Your task to perform on an android device: Open CNN.com Image 0: 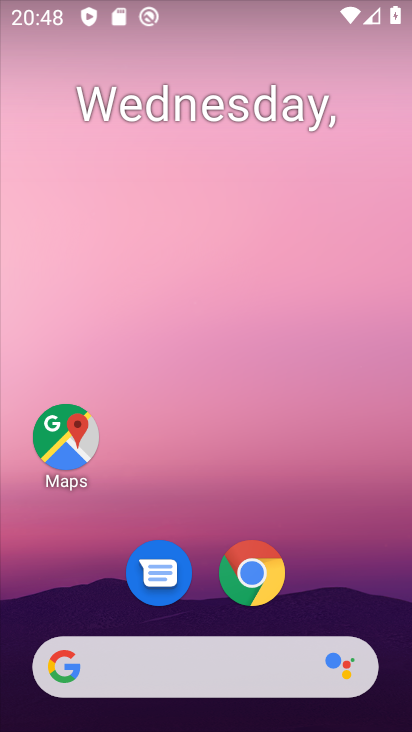
Step 0: click (242, 577)
Your task to perform on an android device: Open CNN.com Image 1: 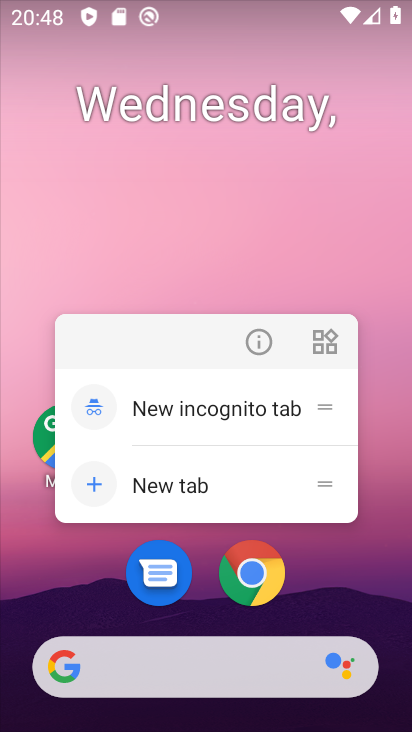
Step 1: click (242, 577)
Your task to perform on an android device: Open CNN.com Image 2: 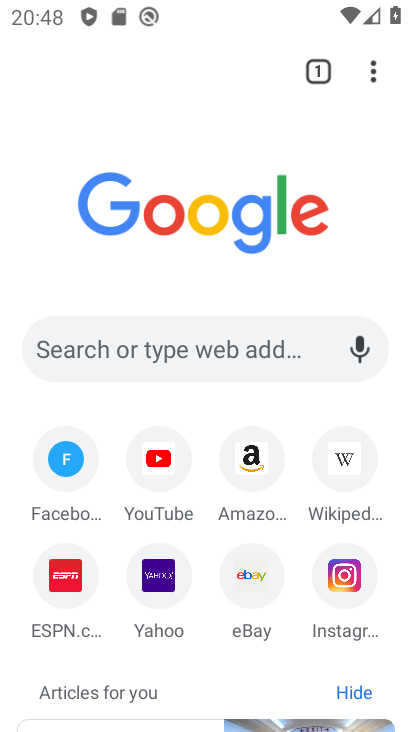
Step 2: click (369, 69)
Your task to perform on an android device: Open CNN.com Image 3: 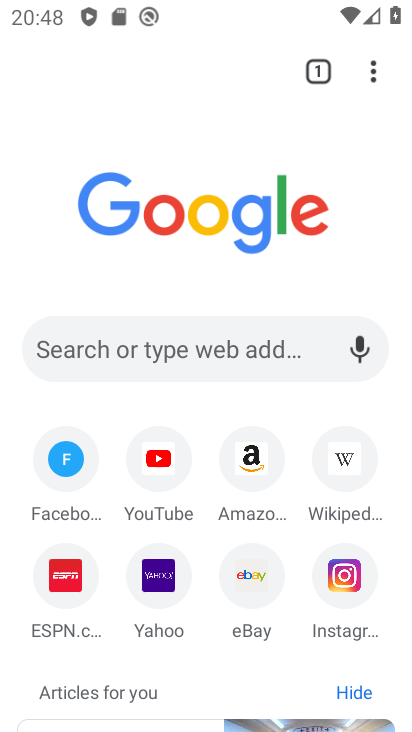
Step 3: click (371, 65)
Your task to perform on an android device: Open CNN.com Image 4: 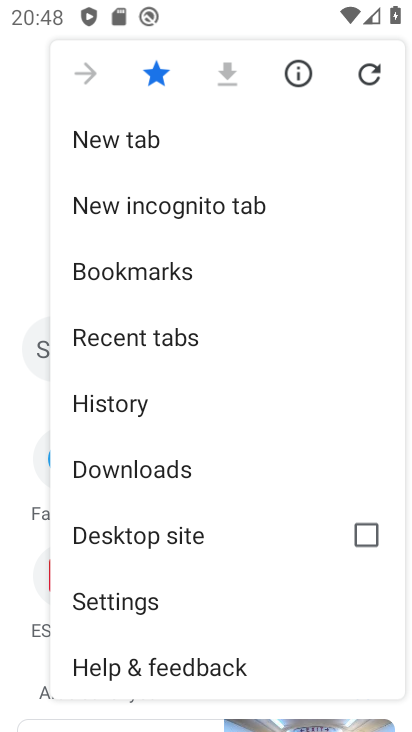
Step 4: click (119, 147)
Your task to perform on an android device: Open CNN.com Image 5: 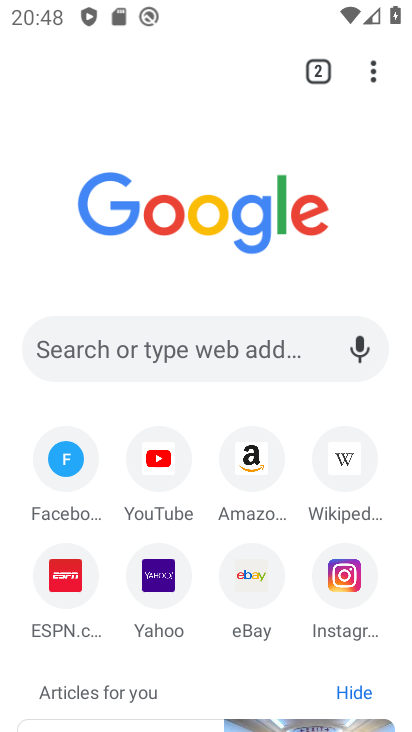
Step 5: click (205, 342)
Your task to perform on an android device: Open CNN.com Image 6: 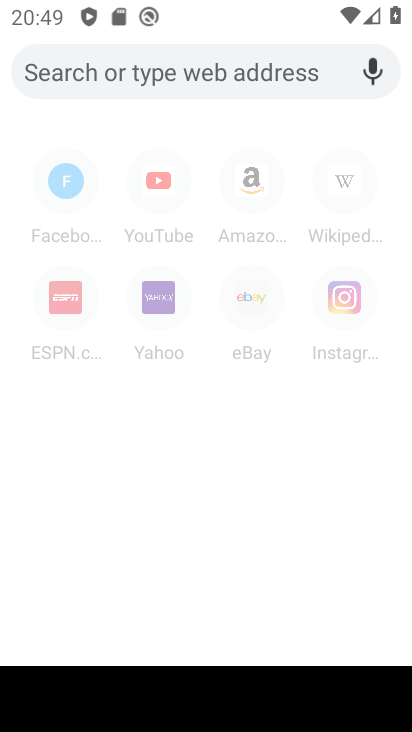
Step 6: type "CNN.com"
Your task to perform on an android device: Open CNN.com Image 7: 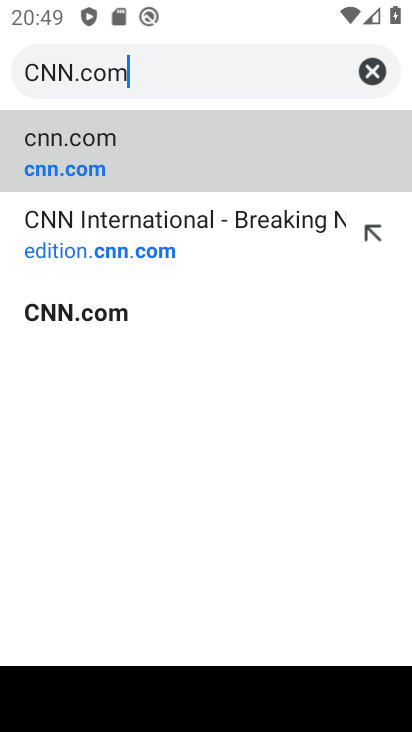
Step 7: click (53, 311)
Your task to perform on an android device: Open CNN.com Image 8: 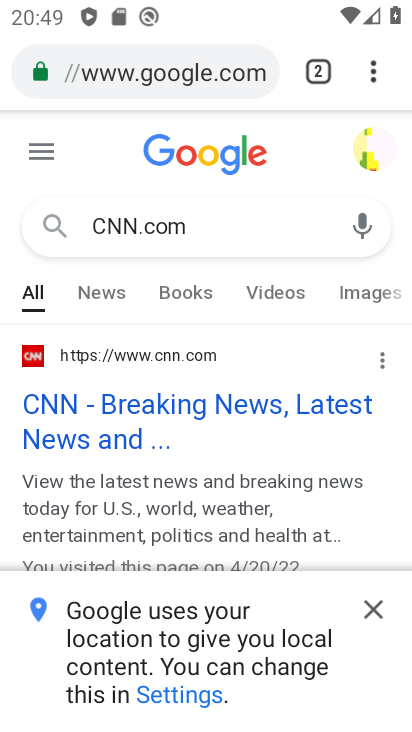
Step 8: task complete